Your task to perform on an android device: turn off data saver in the chrome app Image 0: 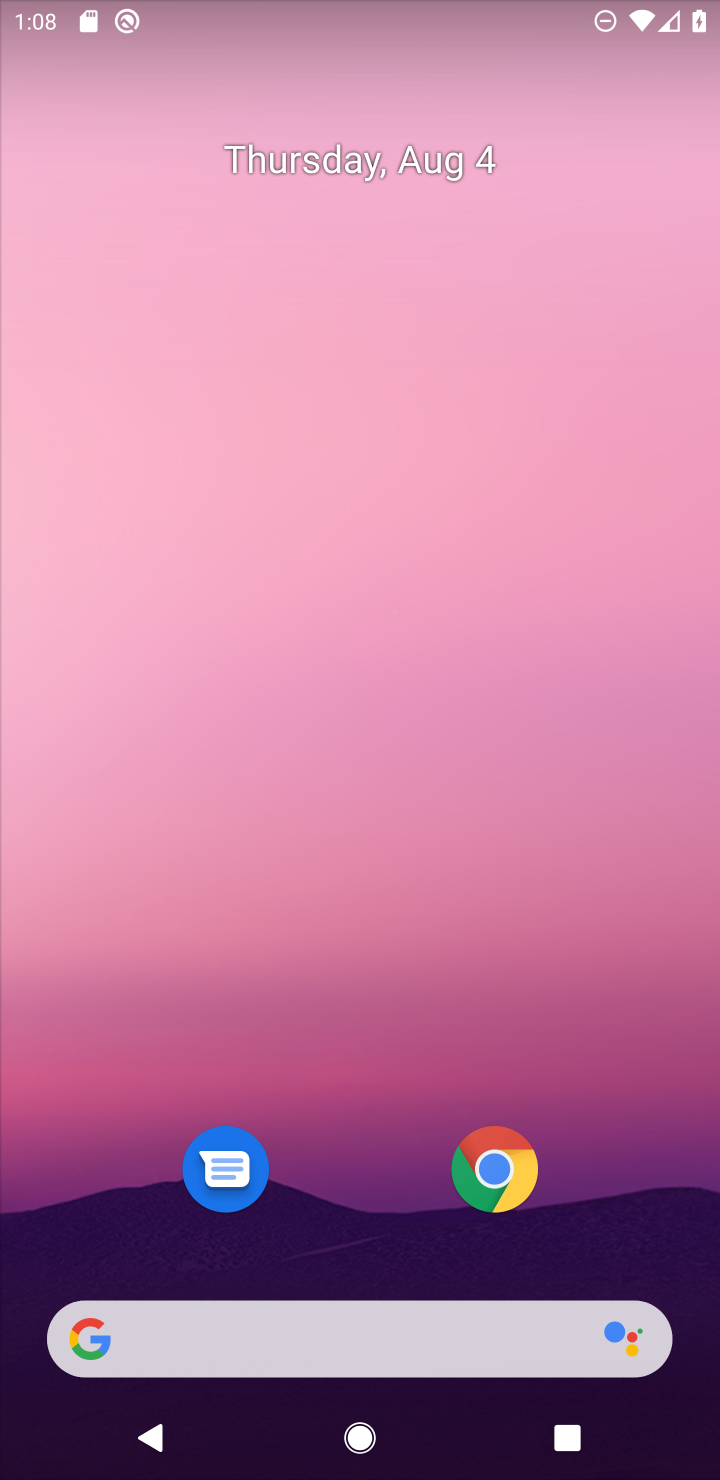
Step 0: click (492, 1169)
Your task to perform on an android device: turn off data saver in the chrome app Image 1: 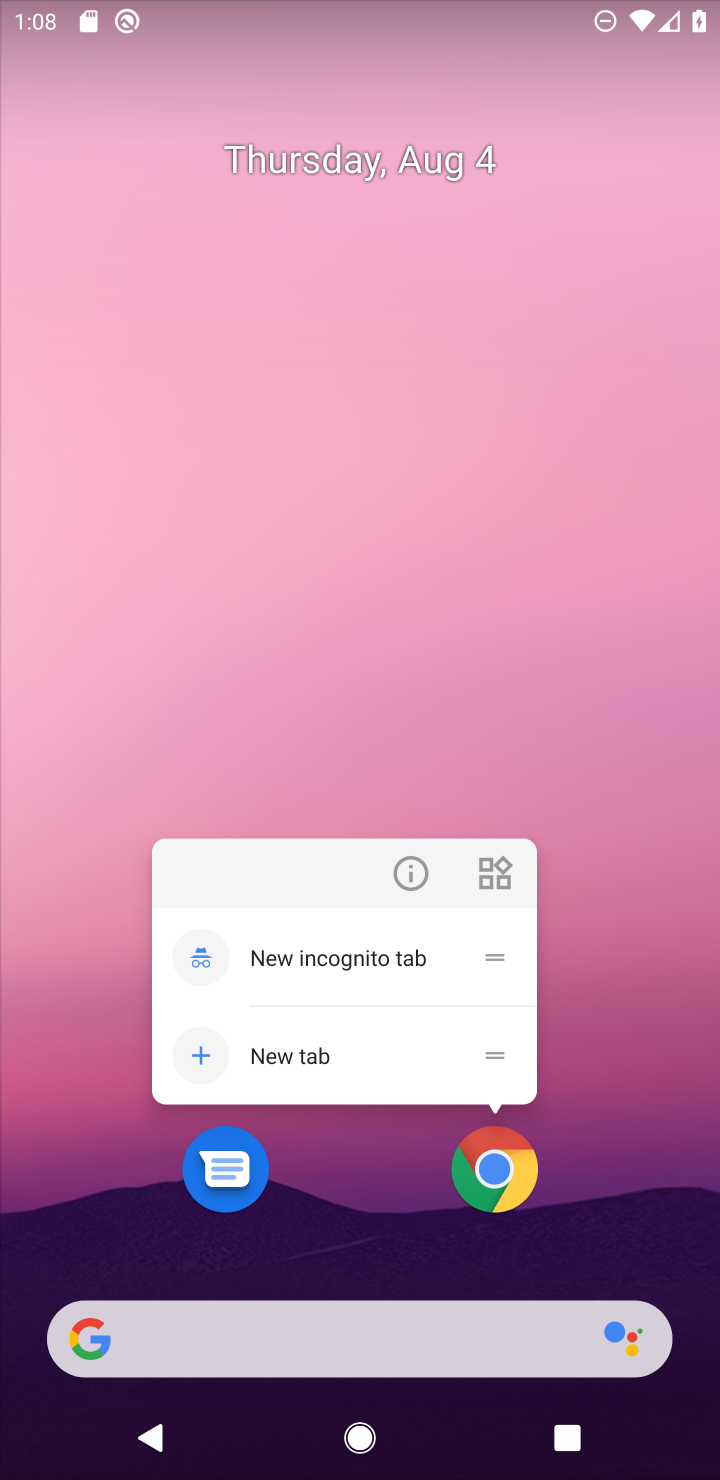
Step 1: click (492, 1169)
Your task to perform on an android device: turn off data saver in the chrome app Image 2: 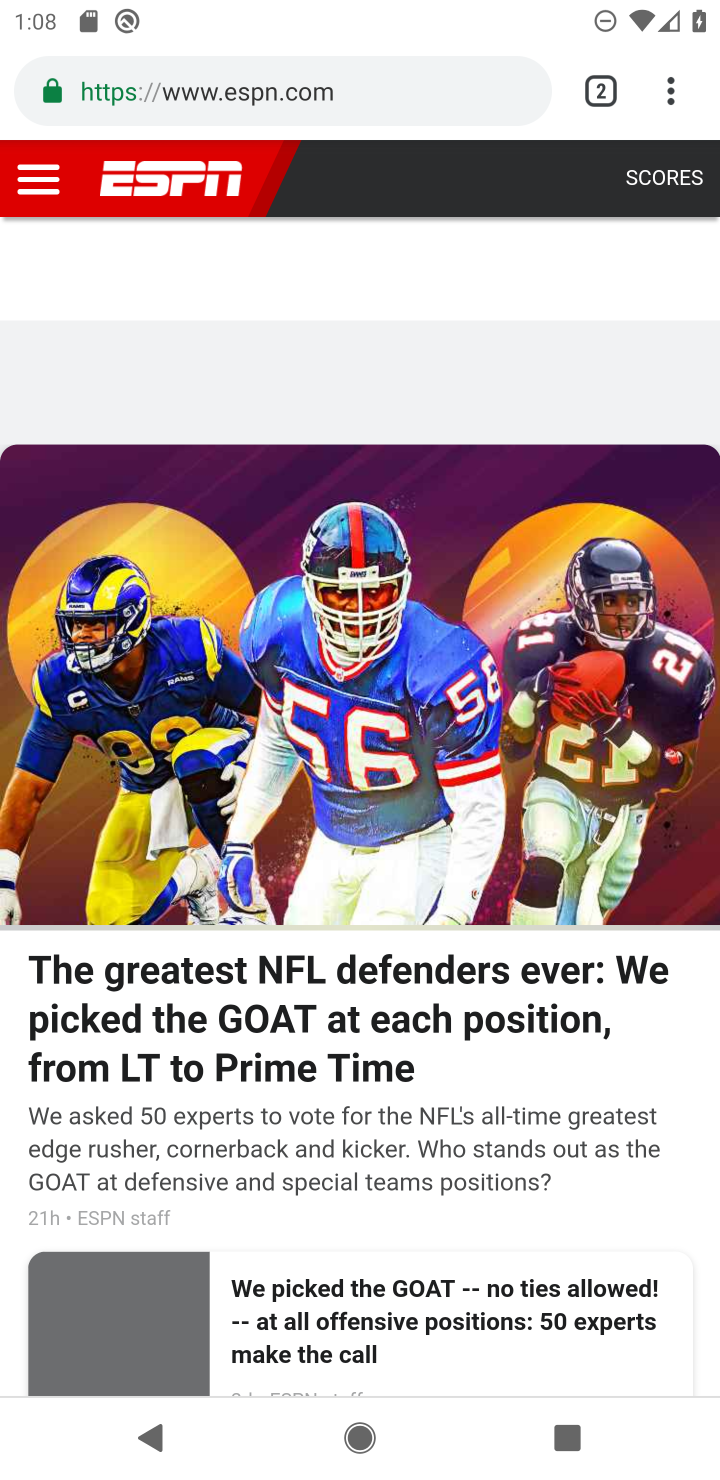
Step 2: drag from (672, 94) to (363, 1094)
Your task to perform on an android device: turn off data saver in the chrome app Image 3: 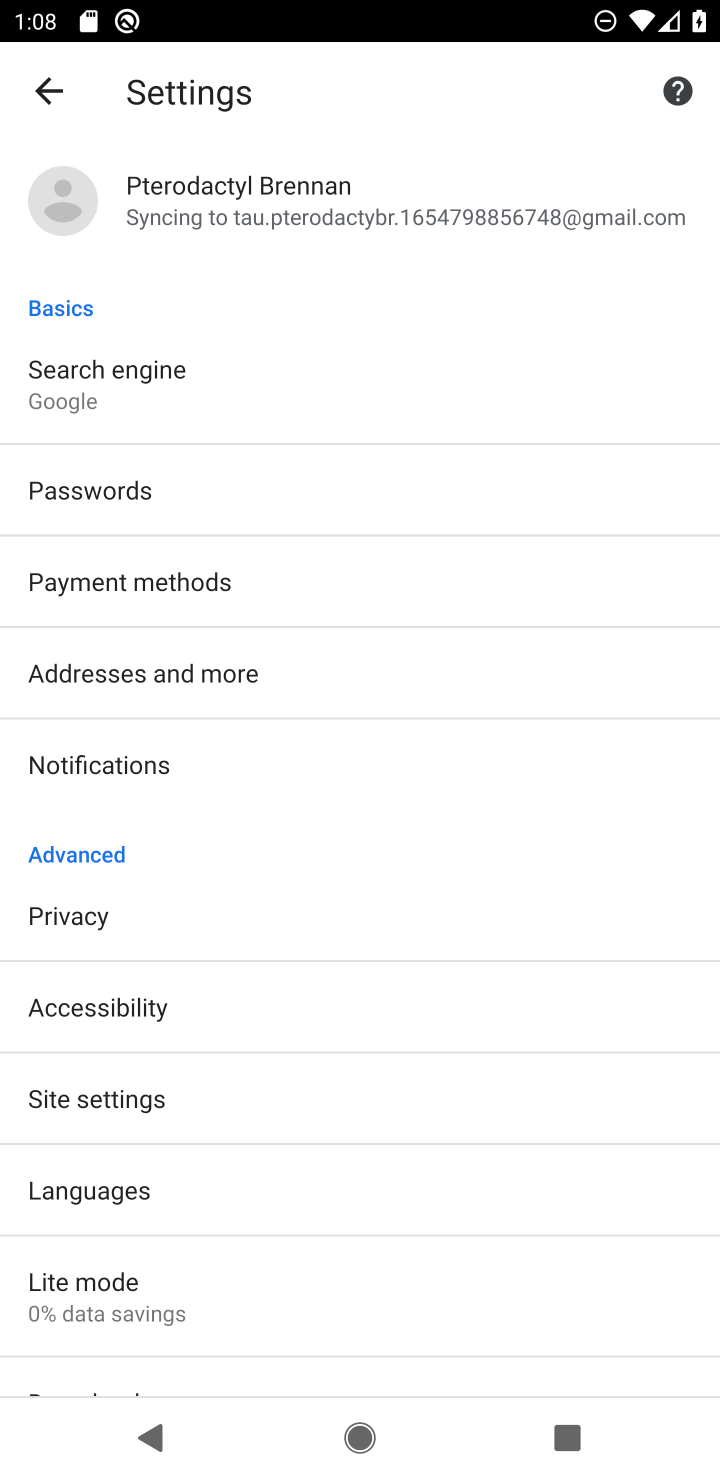
Step 3: click (131, 1281)
Your task to perform on an android device: turn off data saver in the chrome app Image 4: 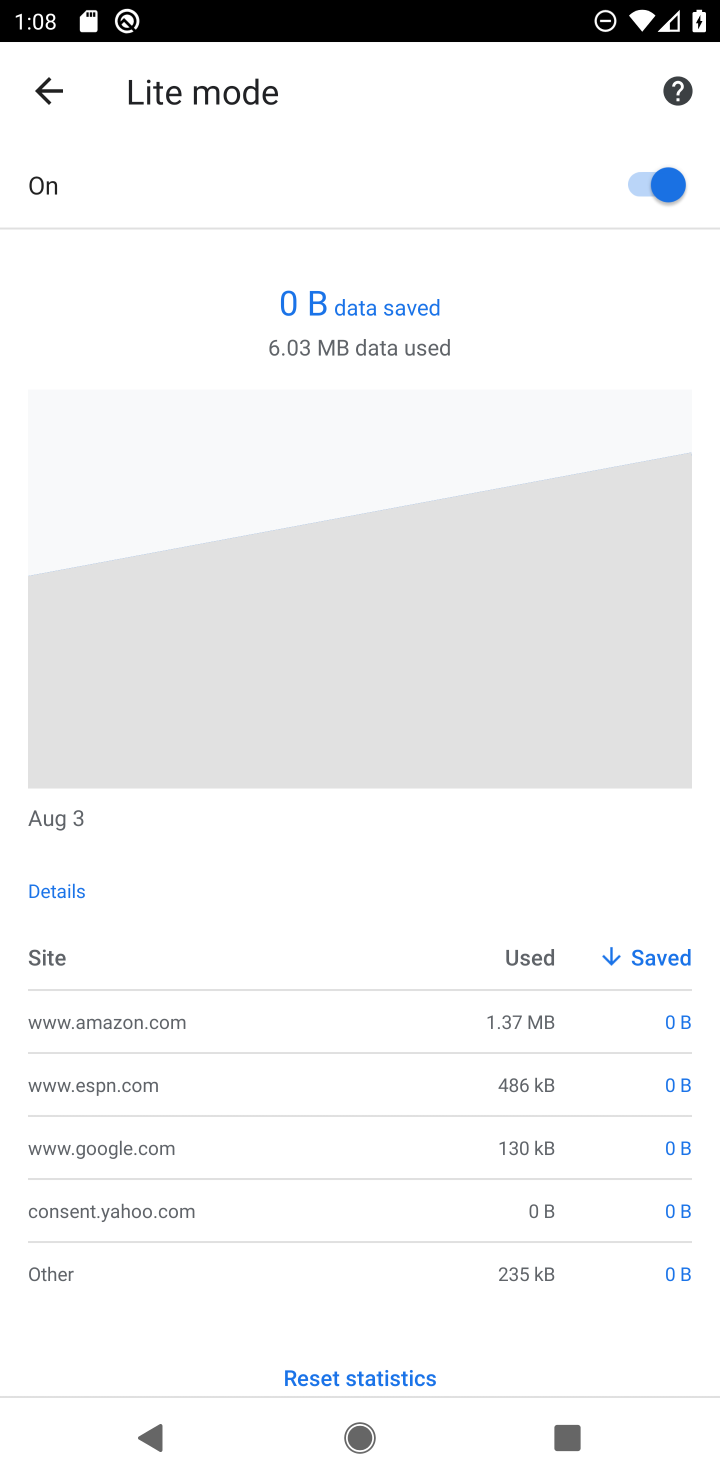
Step 4: click (671, 188)
Your task to perform on an android device: turn off data saver in the chrome app Image 5: 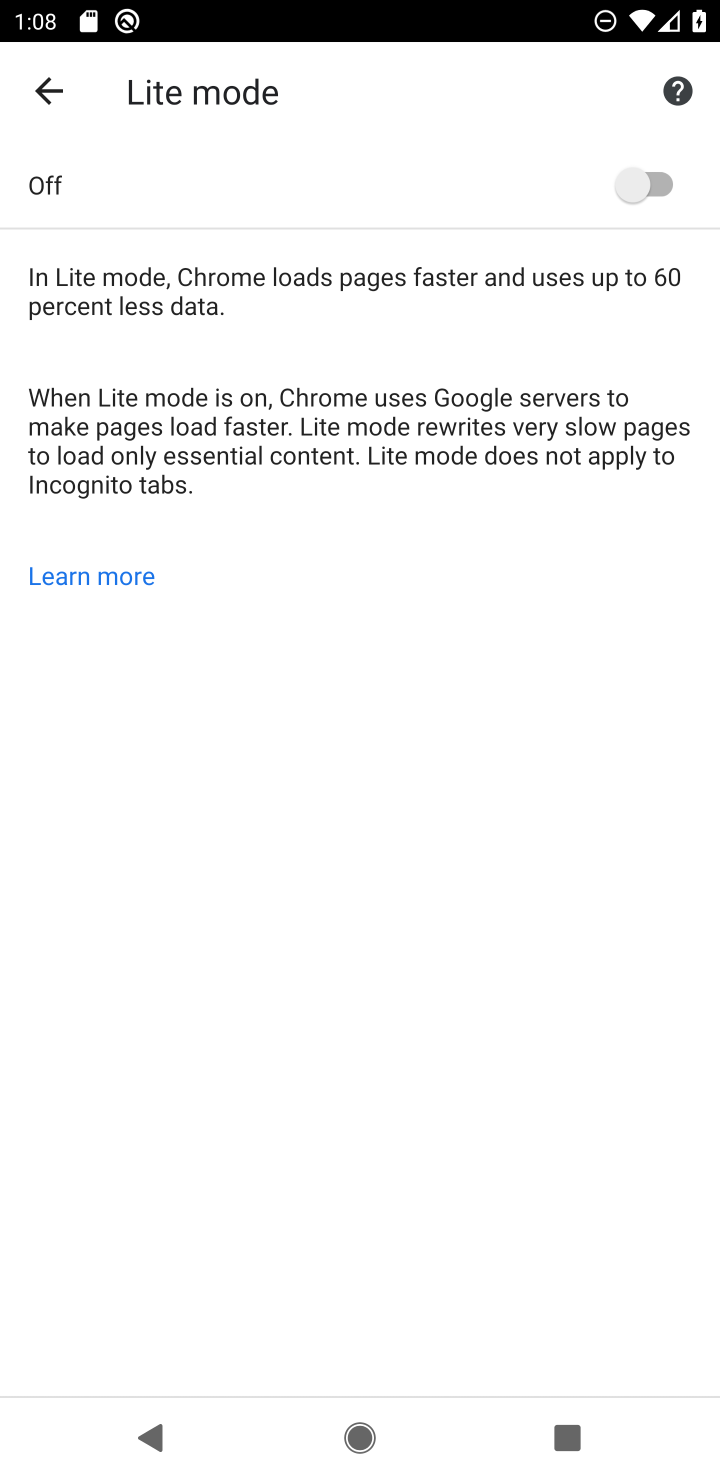
Step 5: task complete